Your task to perform on an android device: choose inbox layout in the gmail app Image 0: 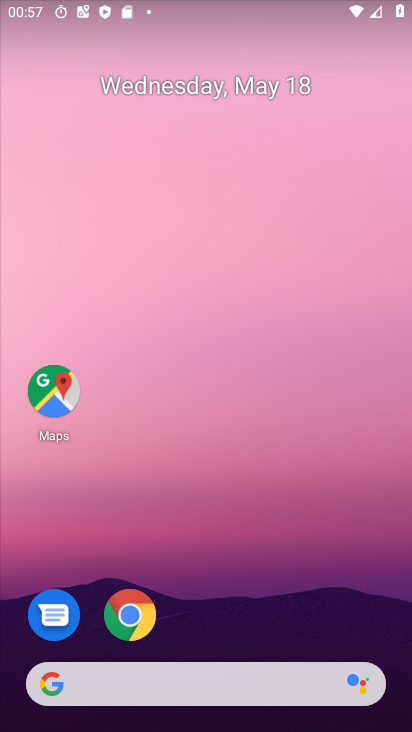
Step 0: drag from (201, 641) to (206, 244)
Your task to perform on an android device: choose inbox layout in the gmail app Image 1: 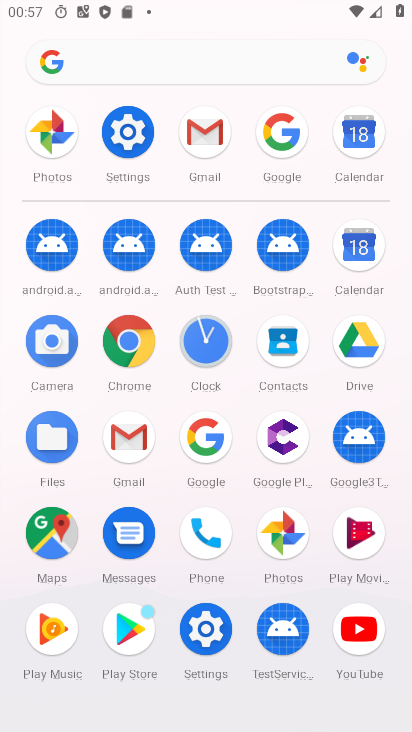
Step 1: click (191, 144)
Your task to perform on an android device: choose inbox layout in the gmail app Image 2: 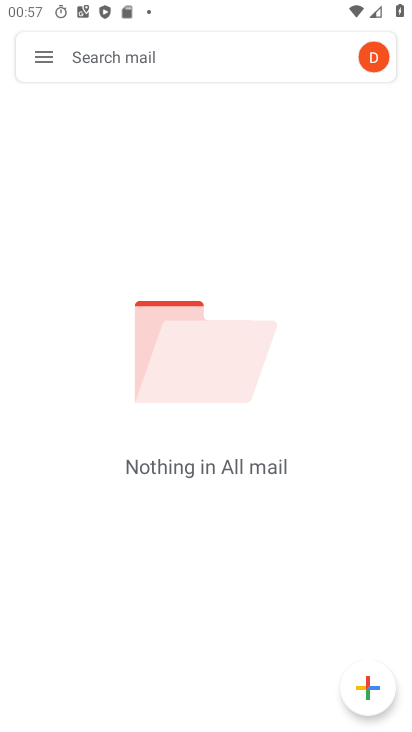
Step 2: click (45, 59)
Your task to perform on an android device: choose inbox layout in the gmail app Image 3: 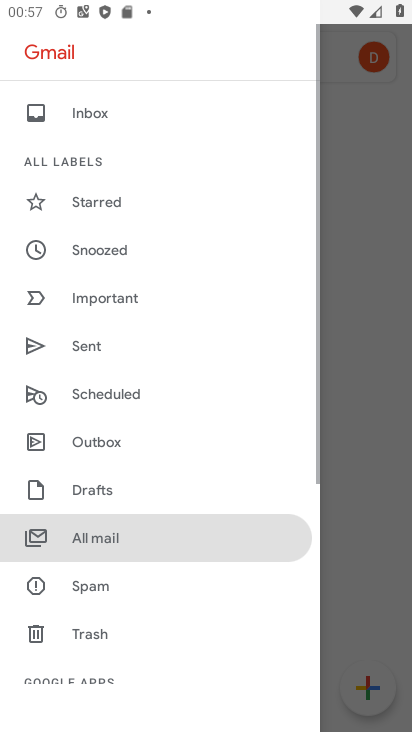
Step 3: drag from (125, 647) to (117, 186)
Your task to perform on an android device: choose inbox layout in the gmail app Image 4: 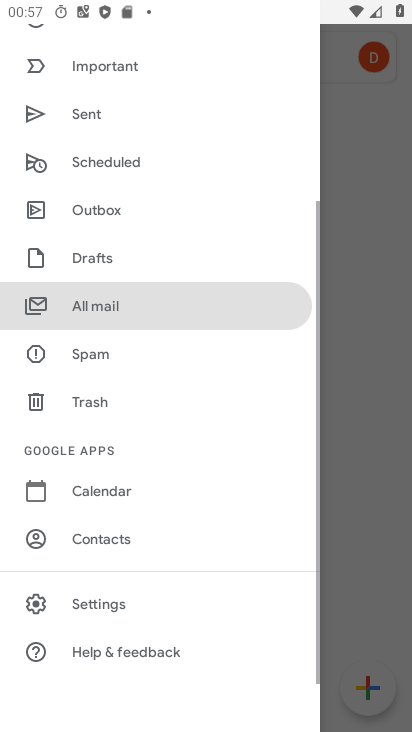
Step 4: click (116, 603)
Your task to perform on an android device: choose inbox layout in the gmail app Image 5: 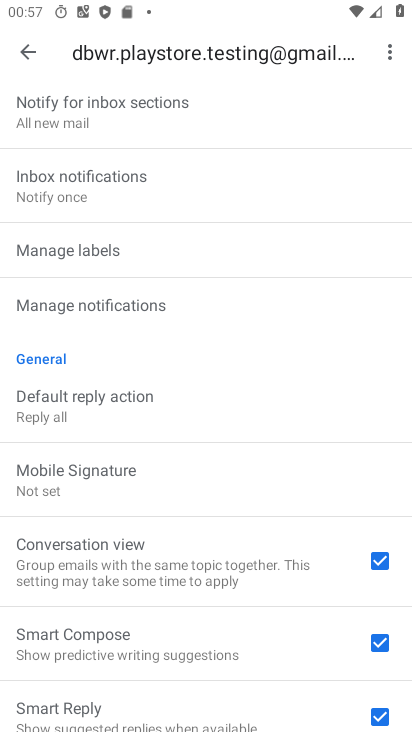
Step 5: drag from (157, 189) to (133, 438)
Your task to perform on an android device: choose inbox layout in the gmail app Image 6: 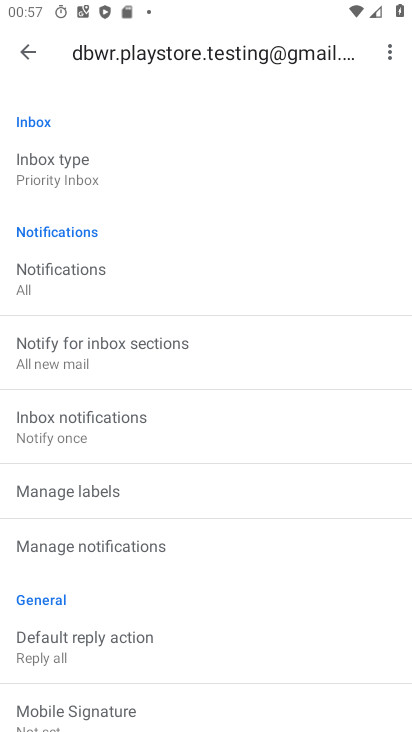
Step 6: click (124, 179)
Your task to perform on an android device: choose inbox layout in the gmail app Image 7: 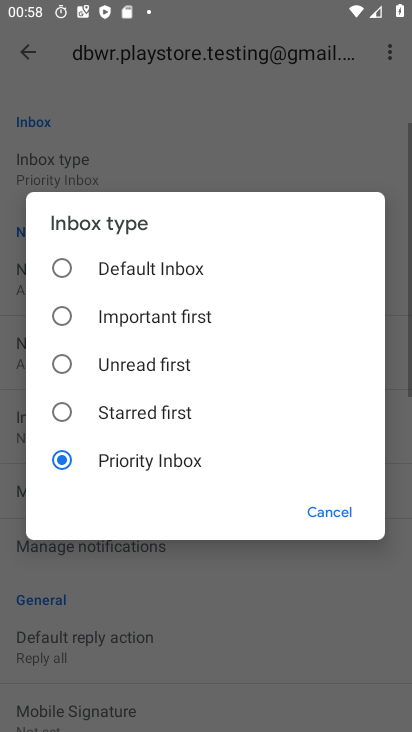
Step 7: click (103, 264)
Your task to perform on an android device: choose inbox layout in the gmail app Image 8: 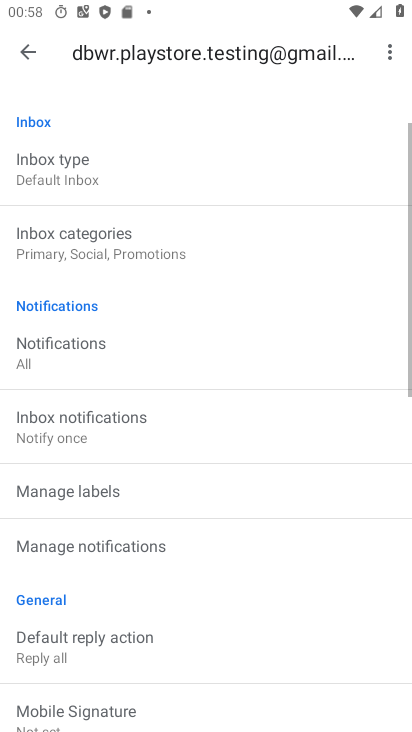
Step 8: task complete